Your task to perform on an android device: Search for vegetarian restaurants on Maps Image 0: 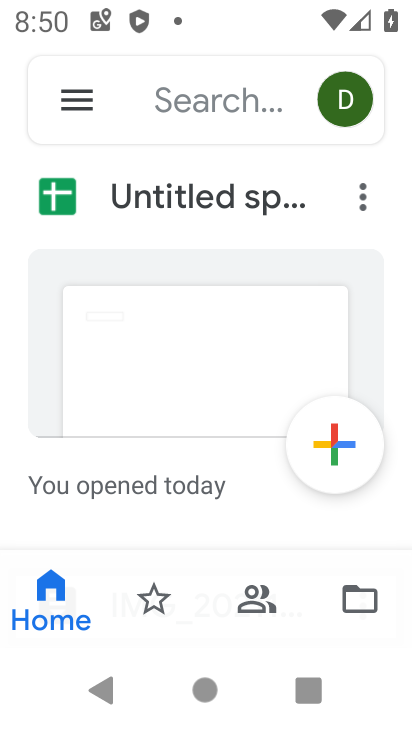
Step 0: press home button
Your task to perform on an android device: Search for vegetarian restaurants on Maps Image 1: 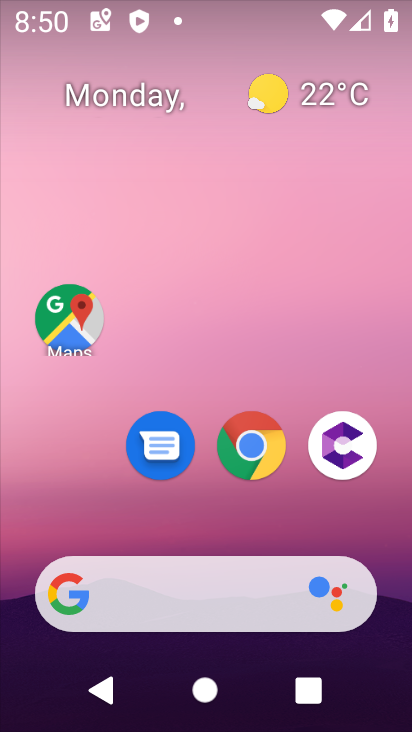
Step 1: click (63, 306)
Your task to perform on an android device: Search for vegetarian restaurants on Maps Image 2: 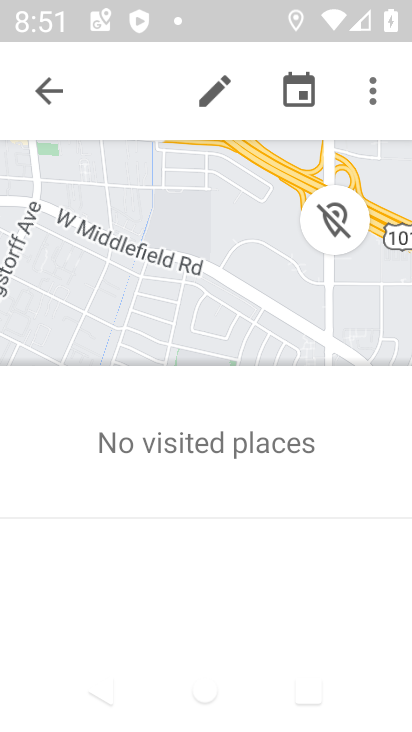
Step 2: click (59, 94)
Your task to perform on an android device: Search for vegetarian restaurants on Maps Image 3: 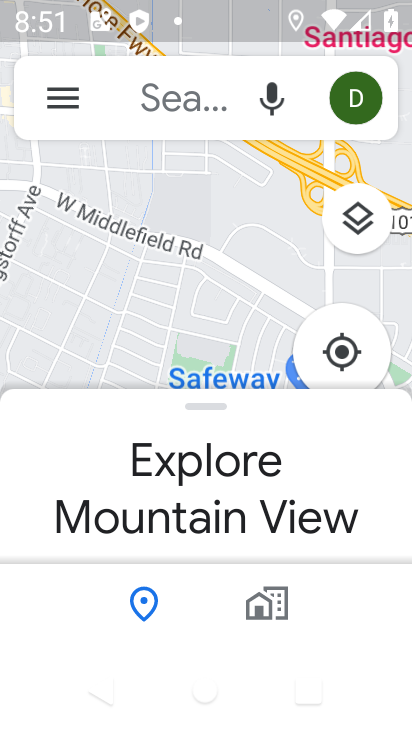
Step 3: click (156, 100)
Your task to perform on an android device: Search for vegetarian restaurants on Maps Image 4: 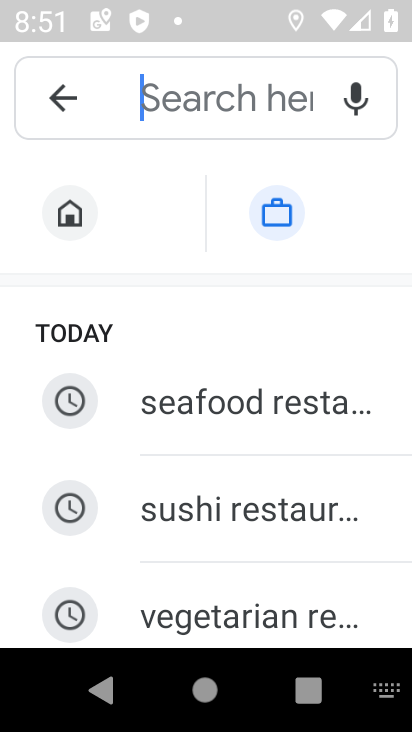
Step 4: click (238, 606)
Your task to perform on an android device: Search for vegetarian restaurants on Maps Image 5: 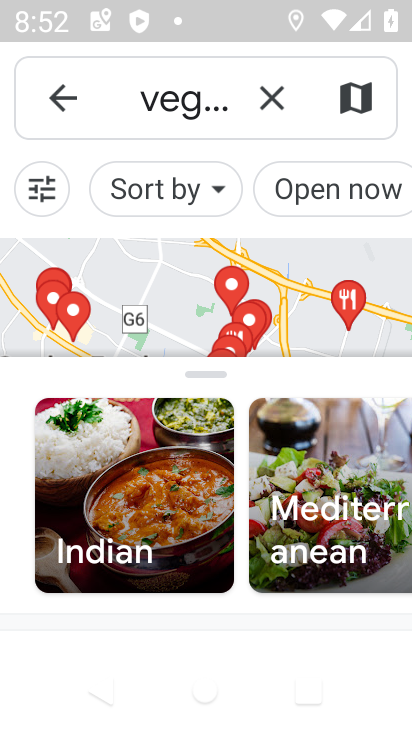
Step 5: task complete